Your task to perform on an android device: toggle data saver in the chrome app Image 0: 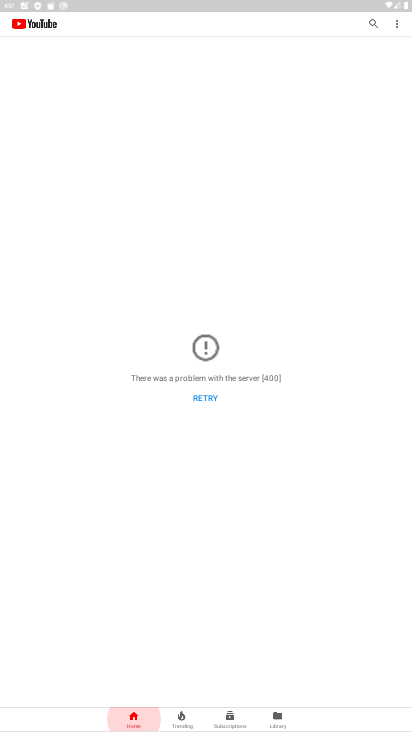
Step 0: press home button
Your task to perform on an android device: toggle data saver in the chrome app Image 1: 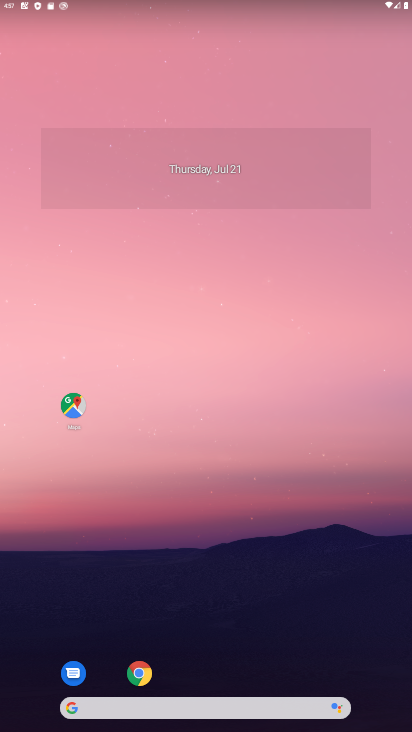
Step 1: drag from (279, 515) to (301, 154)
Your task to perform on an android device: toggle data saver in the chrome app Image 2: 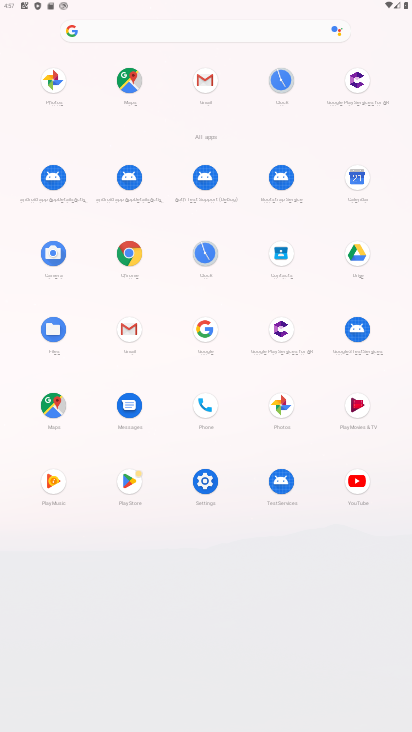
Step 2: click (130, 258)
Your task to perform on an android device: toggle data saver in the chrome app Image 3: 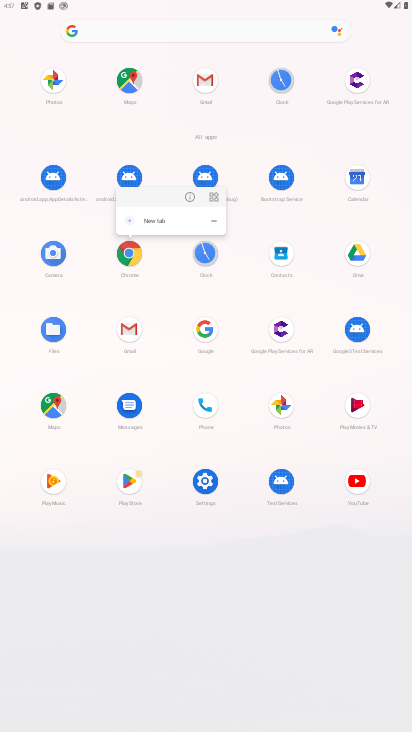
Step 3: click (130, 258)
Your task to perform on an android device: toggle data saver in the chrome app Image 4: 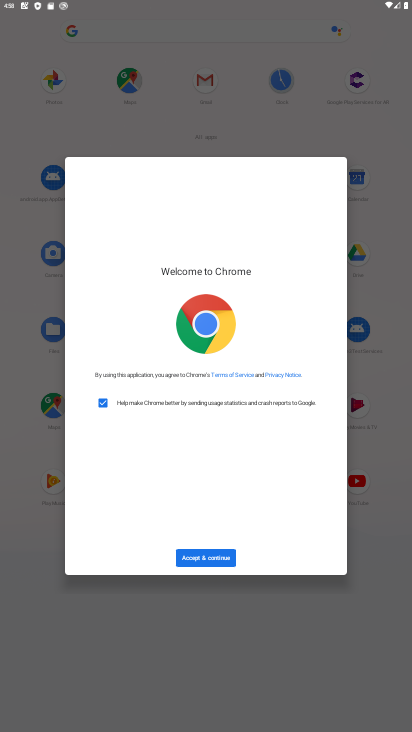
Step 4: click (223, 560)
Your task to perform on an android device: toggle data saver in the chrome app Image 5: 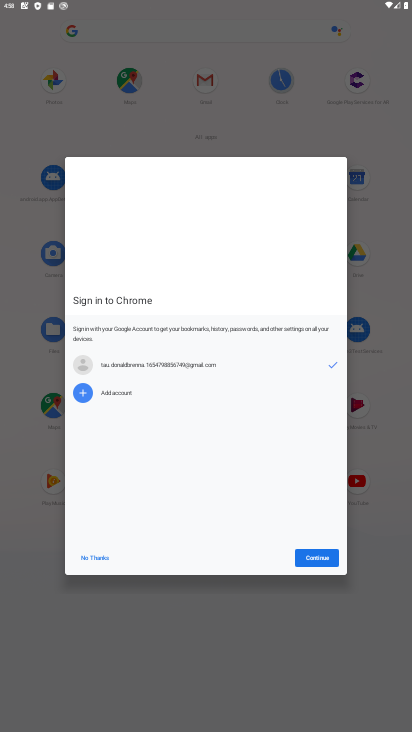
Step 5: click (316, 556)
Your task to perform on an android device: toggle data saver in the chrome app Image 6: 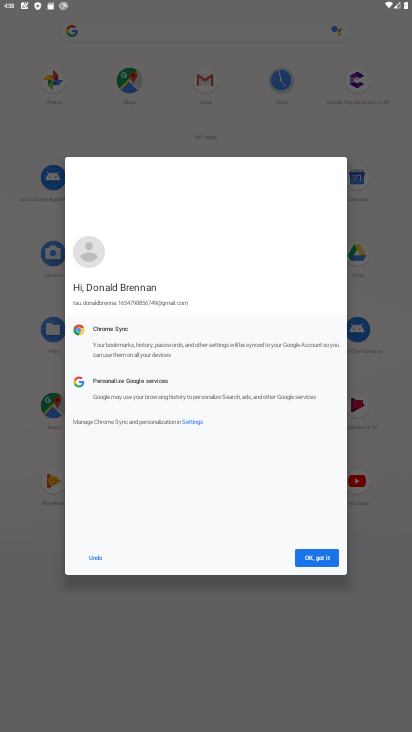
Step 6: click (314, 560)
Your task to perform on an android device: toggle data saver in the chrome app Image 7: 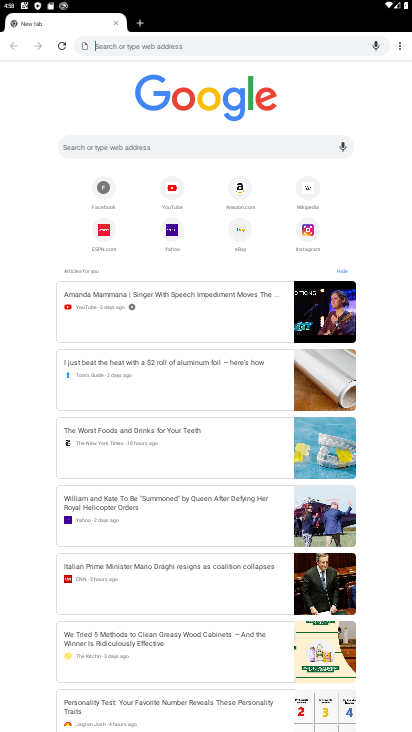
Step 7: click (400, 45)
Your task to perform on an android device: toggle data saver in the chrome app Image 8: 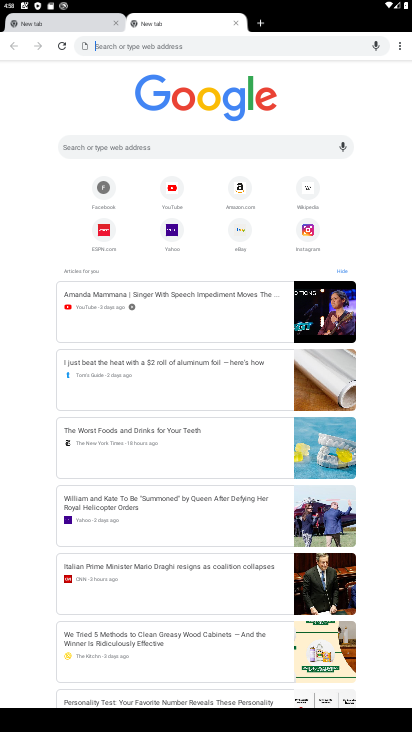
Step 8: click (397, 49)
Your task to perform on an android device: toggle data saver in the chrome app Image 9: 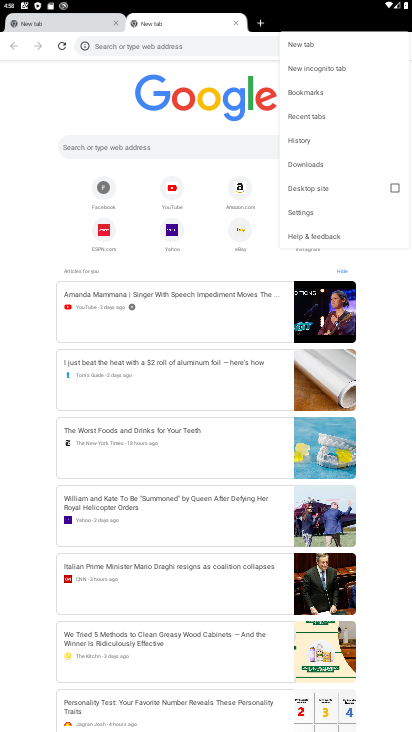
Step 9: click (302, 211)
Your task to perform on an android device: toggle data saver in the chrome app Image 10: 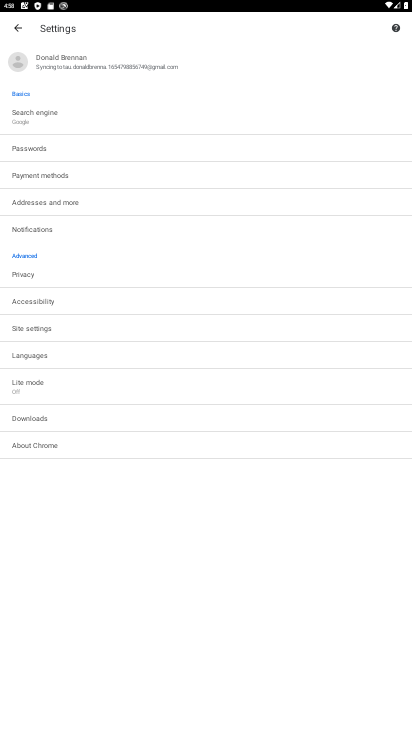
Step 10: task complete